Your task to perform on an android device: Open internet settings Image 0: 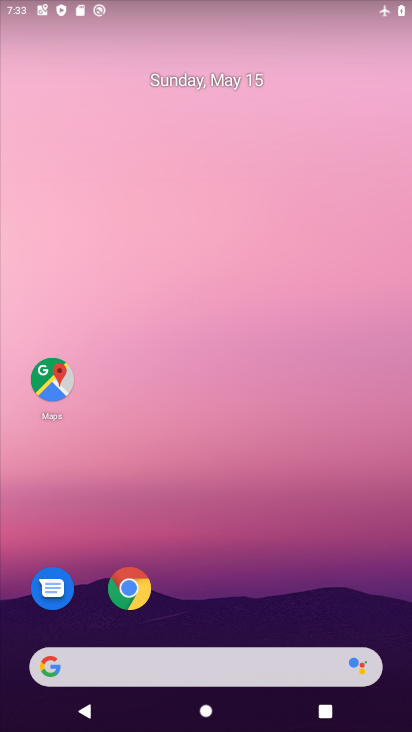
Step 0: drag from (311, 600) to (296, 29)
Your task to perform on an android device: Open internet settings Image 1: 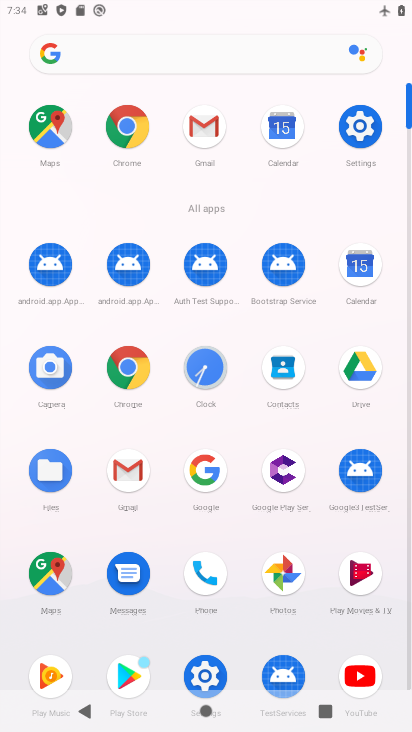
Step 1: click (204, 663)
Your task to perform on an android device: Open internet settings Image 2: 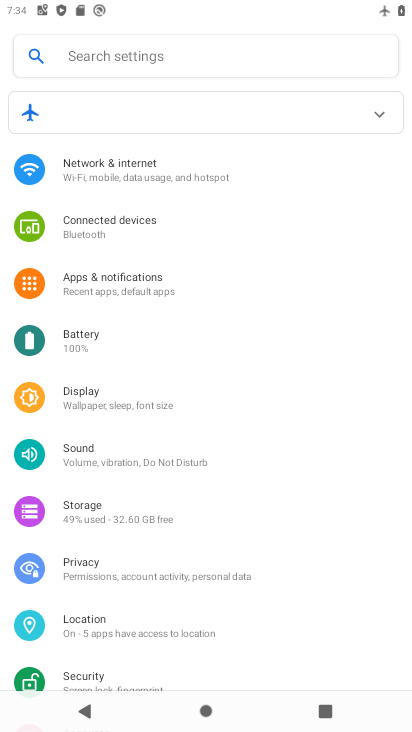
Step 2: click (128, 189)
Your task to perform on an android device: Open internet settings Image 3: 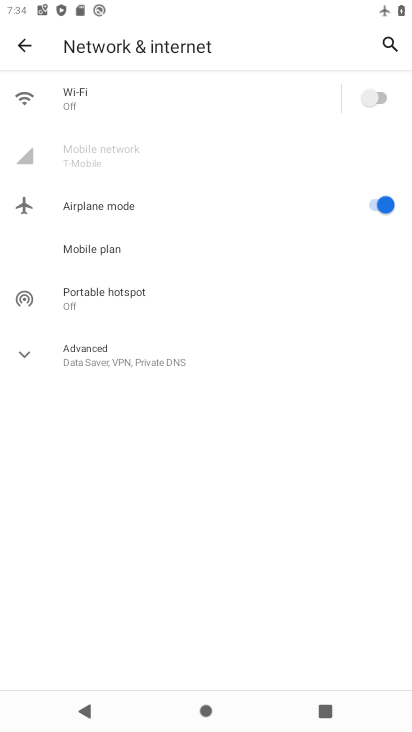
Step 3: task complete